Your task to perform on an android device: Open settings Image 0: 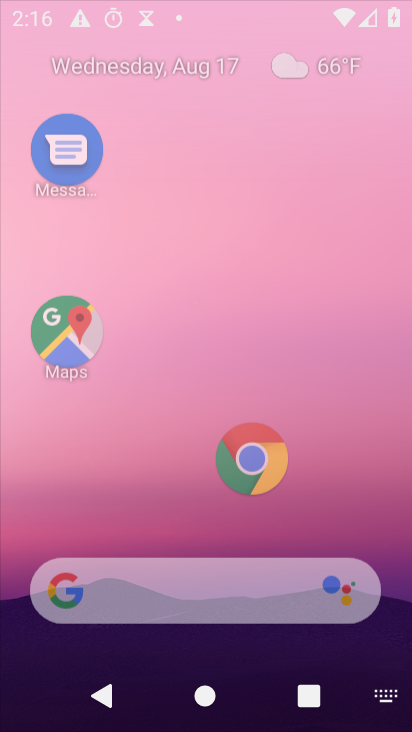
Step 0: press home button
Your task to perform on an android device: Open settings Image 1: 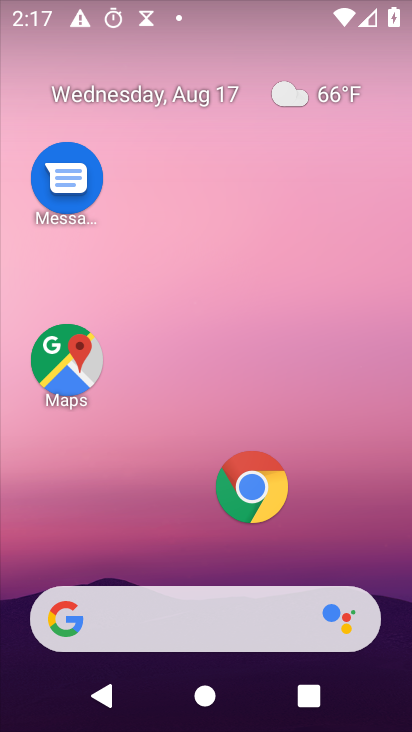
Step 1: drag from (201, 524) to (186, 13)
Your task to perform on an android device: Open settings Image 2: 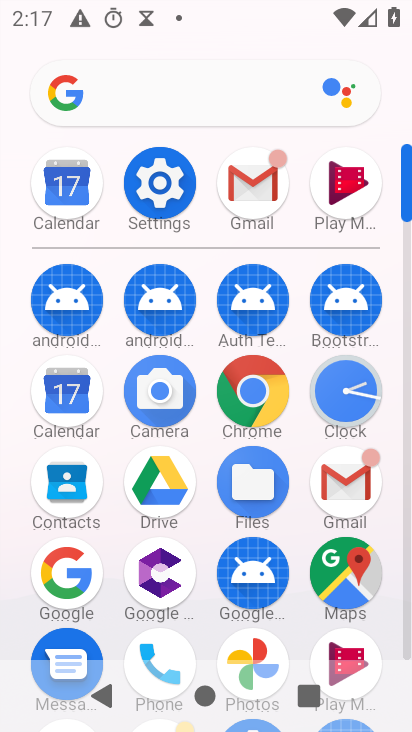
Step 2: click (157, 215)
Your task to perform on an android device: Open settings Image 3: 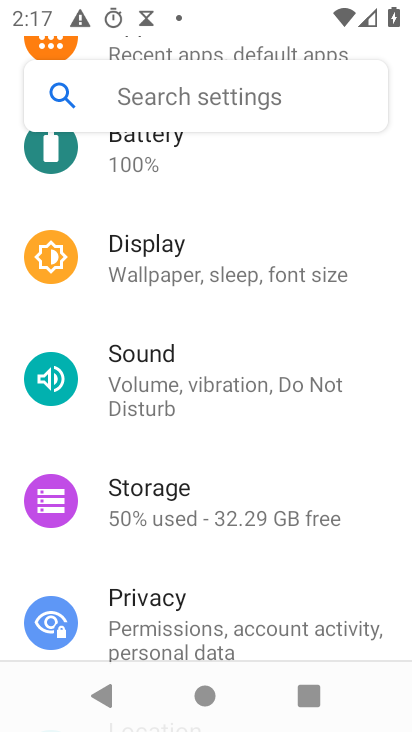
Step 3: task complete